Your task to perform on an android device: delete a single message in the gmail app Image 0: 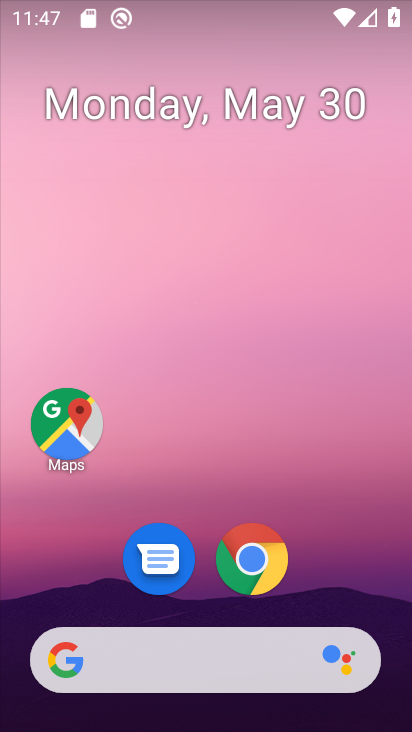
Step 0: drag from (334, 571) to (241, 203)
Your task to perform on an android device: delete a single message in the gmail app Image 1: 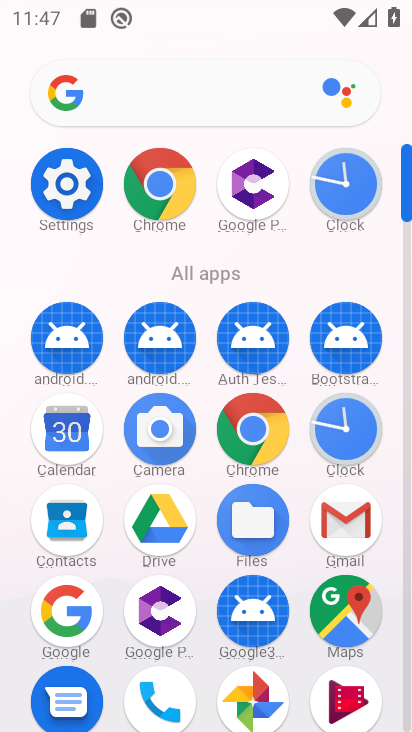
Step 1: click (357, 530)
Your task to perform on an android device: delete a single message in the gmail app Image 2: 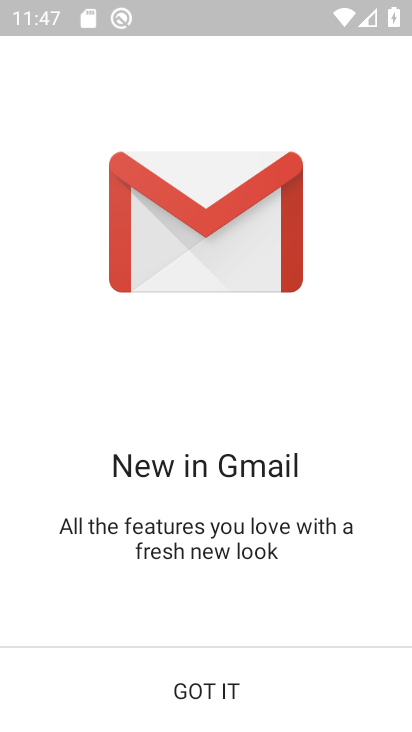
Step 2: click (240, 693)
Your task to perform on an android device: delete a single message in the gmail app Image 3: 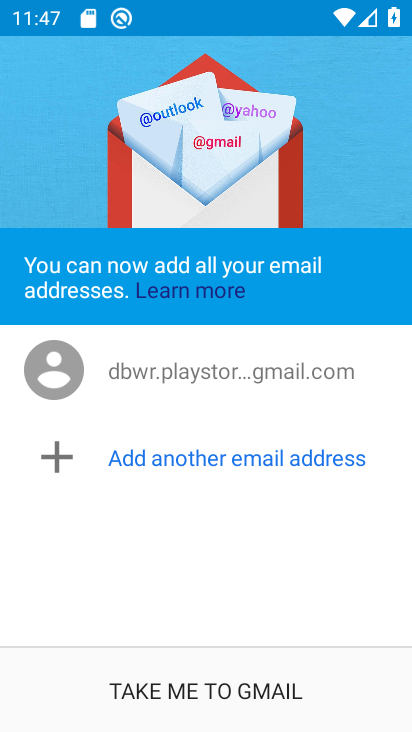
Step 3: click (268, 706)
Your task to perform on an android device: delete a single message in the gmail app Image 4: 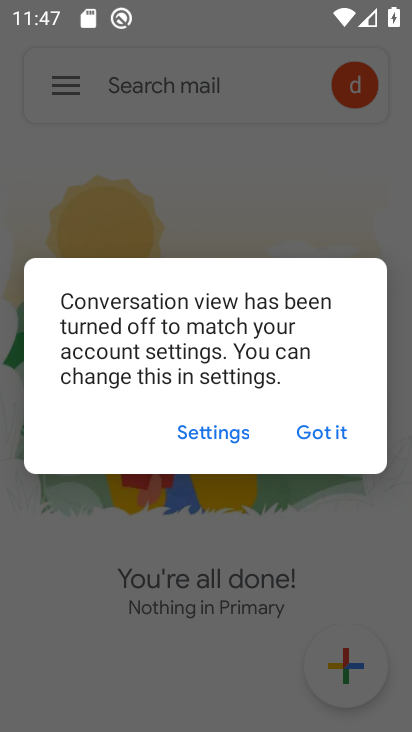
Step 4: click (321, 441)
Your task to perform on an android device: delete a single message in the gmail app Image 5: 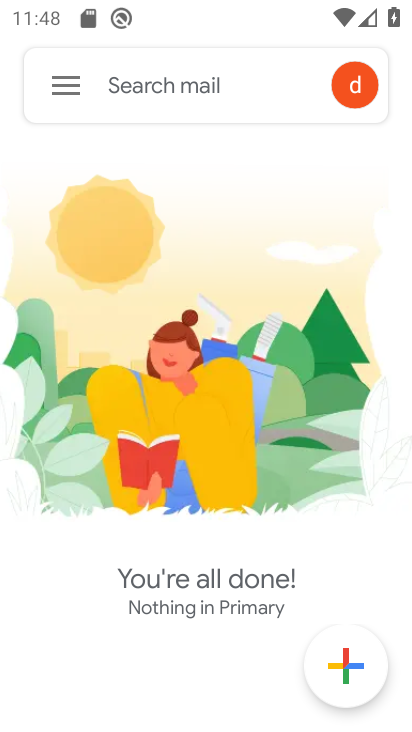
Step 5: task complete